Your task to perform on an android device: turn off location Image 0: 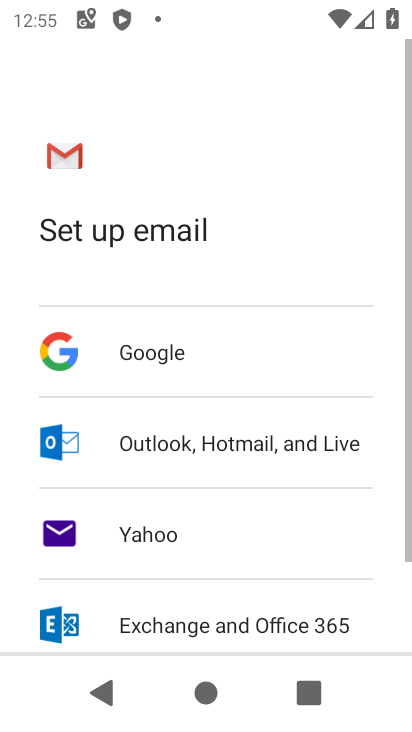
Step 0: press home button
Your task to perform on an android device: turn off location Image 1: 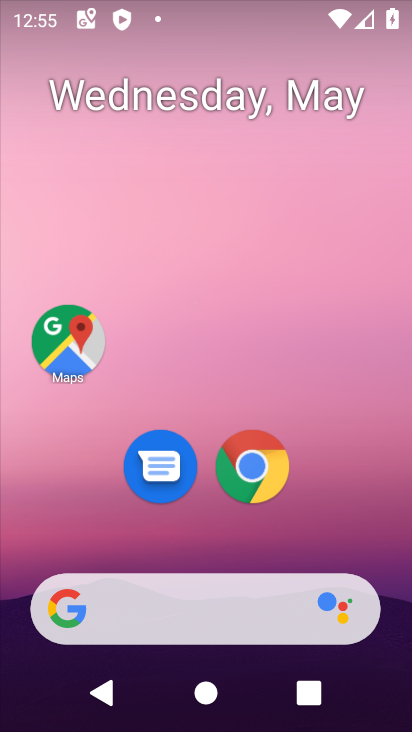
Step 1: drag from (203, 541) to (235, 76)
Your task to perform on an android device: turn off location Image 2: 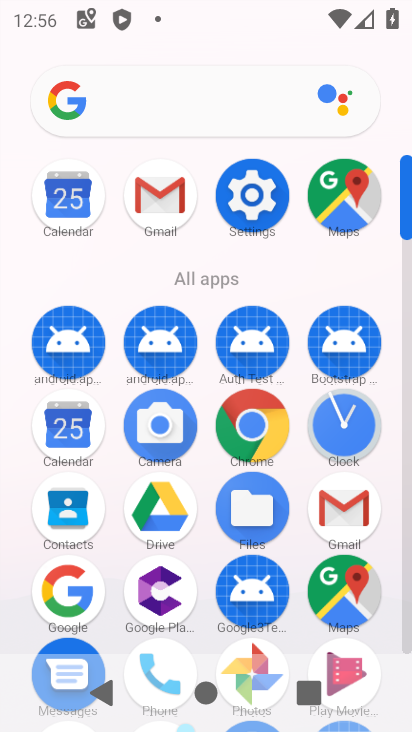
Step 2: click (257, 197)
Your task to perform on an android device: turn off location Image 3: 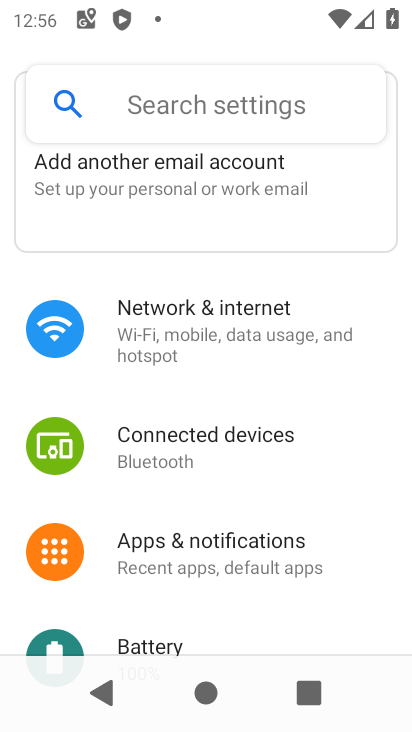
Step 3: drag from (261, 594) to (280, 55)
Your task to perform on an android device: turn off location Image 4: 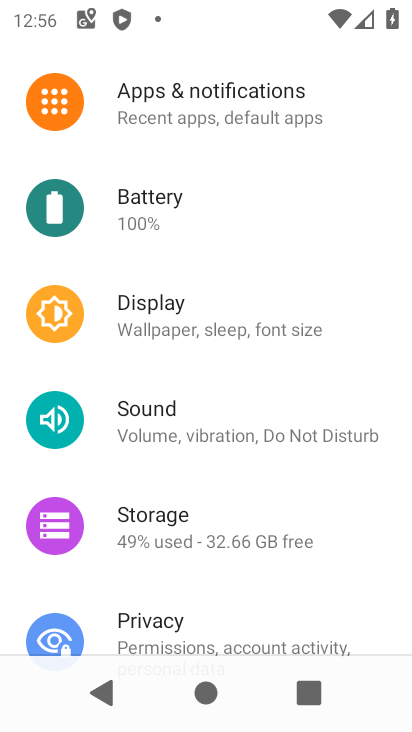
Step 4: drag from (218, 608) to (223, 199)
Your task to perform on an android device: turn off location Image 5: 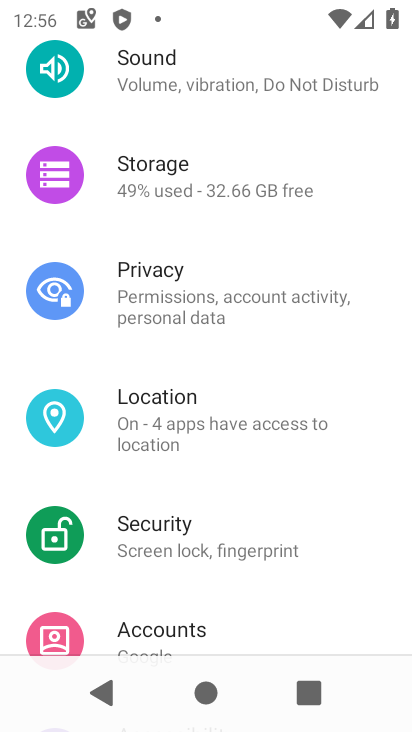
Step 5: click (178, 413)
Your task to perform on an android device: turn off location Image 6: 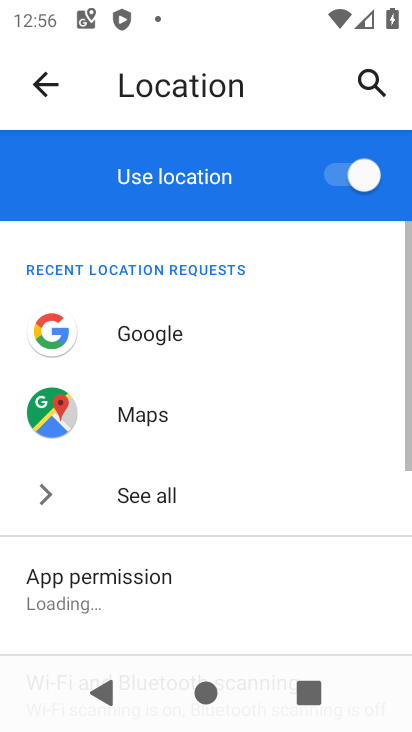
Step 6: click (361, 176)
Your task to perform on an android device: turn off location Image 7: 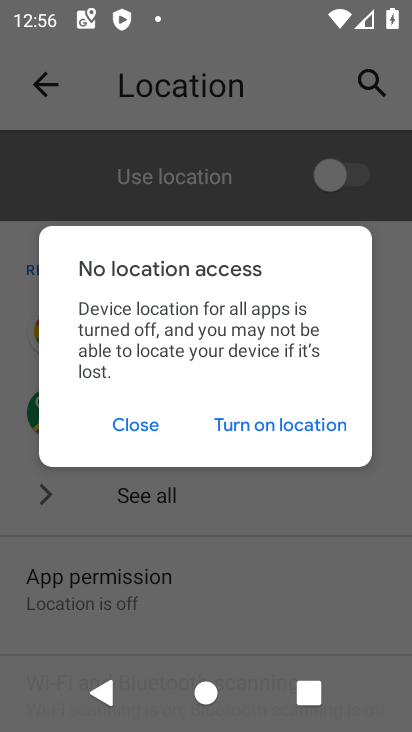
Step 7: click (158, 420)
Your task to perform on an android device: turn off location Image 8: 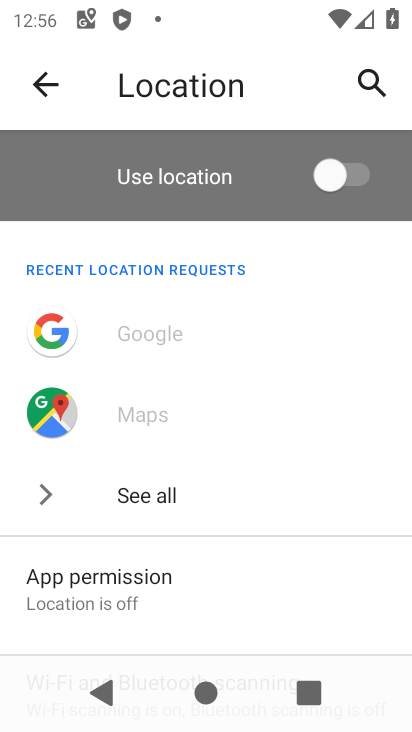
Step 8: task complete